Your task to perform on an android device: Toggle the flashlight Image 0: 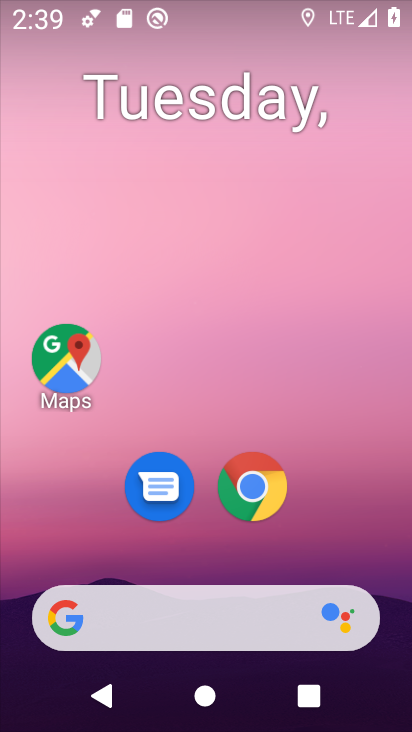
Step 0: drag from (219, 0) to (219, 308)
Your task to perform on an android device: Toggle the flashlight Image 1: 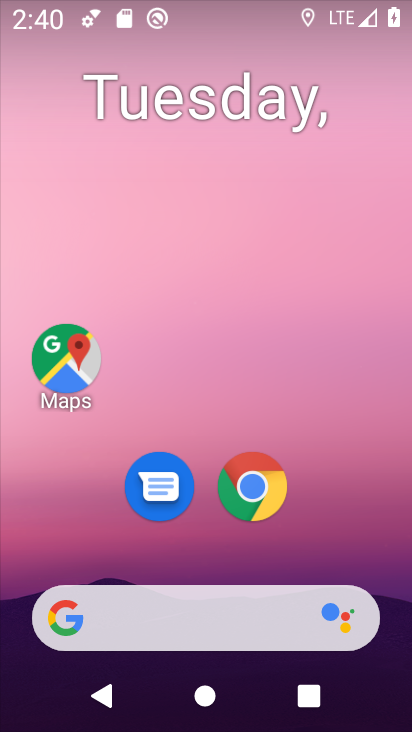
Step 1: drag from (220, 12) to (232, 306)
Your task to perform on an android device: Toggle the flashlight Image 2: 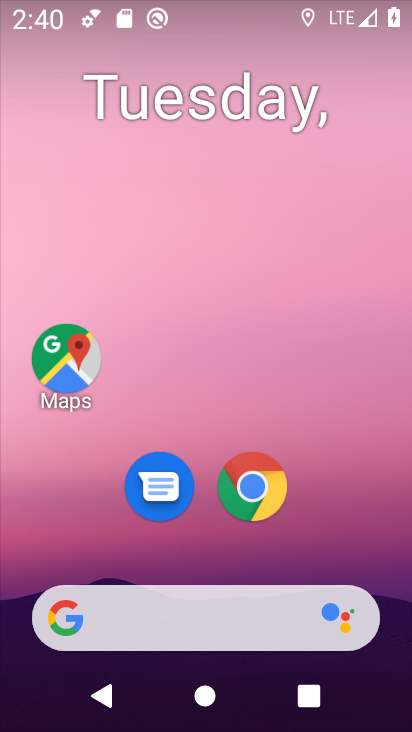
Step 2: drag from (225, 1) to (247, 507)
Your task to perform on an android device: Toggle the flashlight Image 3: 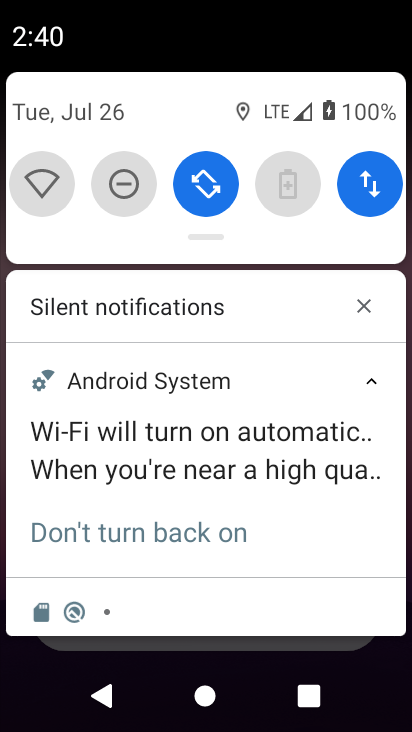
Step 3: drag from (241, 176) to (256, 404)
Your task to perform on an android device: Toggle the flashlight Image 4: 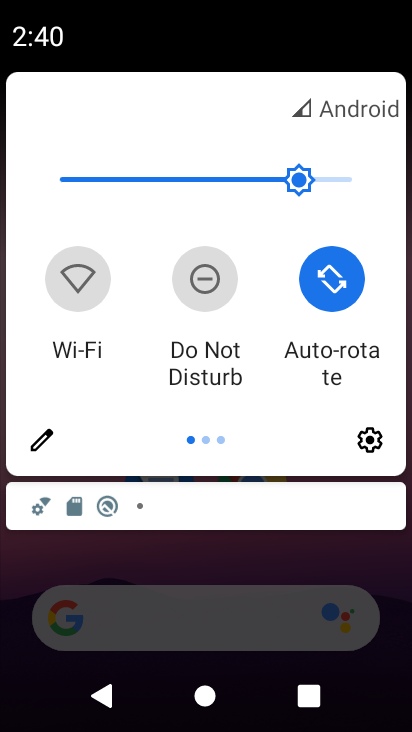
Step 4: click (31, 443)
Your task to perform on an android device: Toggle the flashlight Image 5: 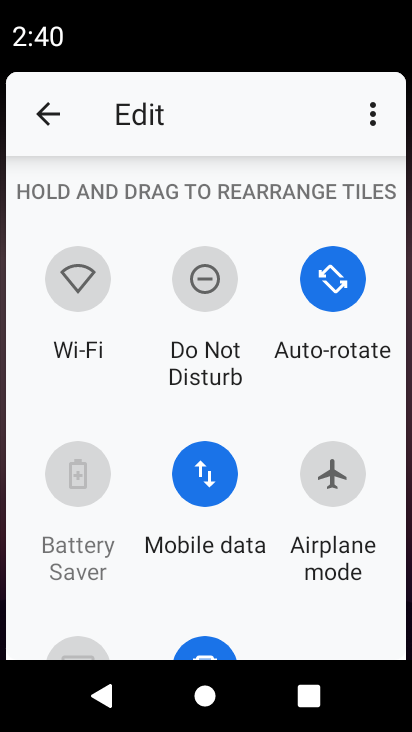
Step 5: task complete